Your task to perform on an android device: clear all cookies in the chrome app Image 0: 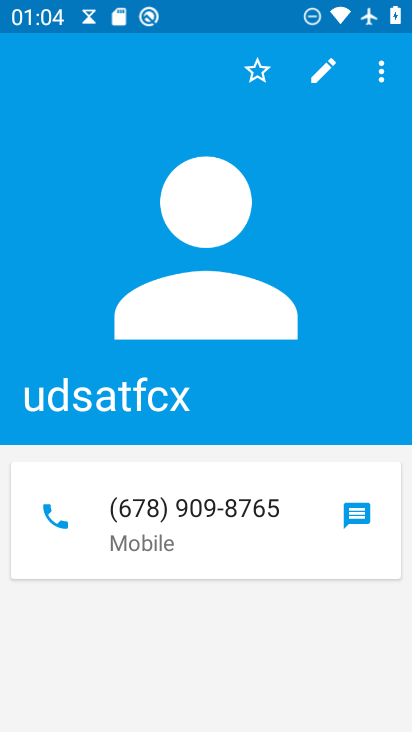
Step 0: press home button
Your task to perform on an android device: clear all cookies in the chrome app Image 1: 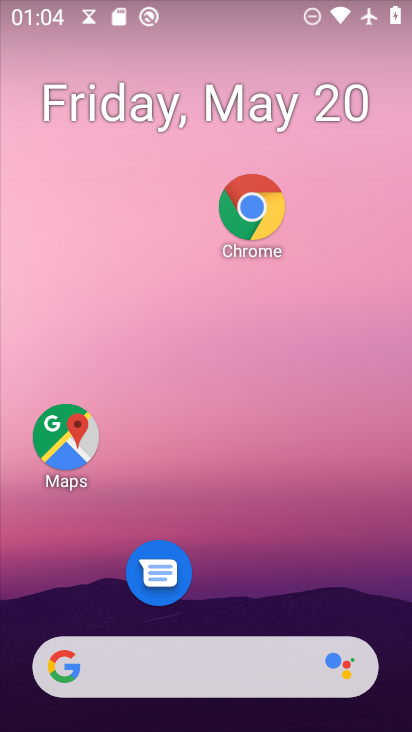
Step 1: click (253, 204)
Your task to perform on an android device: clear all cookies in the chrome app Image 2: 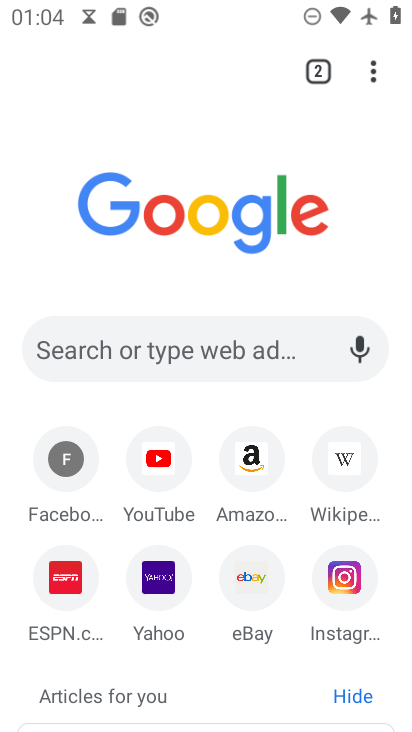
Step 2: click (374, 61)
Your task to perform on an android device: clear all cookies in the chrome app Image 3: 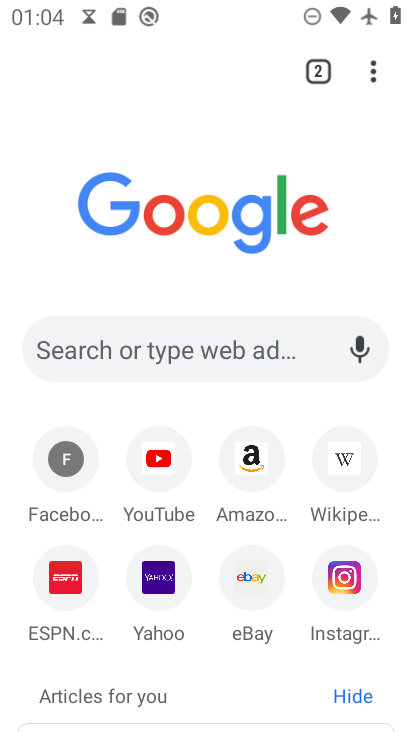
Step 3: click (390, 83)
Your task to perform on an android device: clear all cookies in the chrome app Image 4: 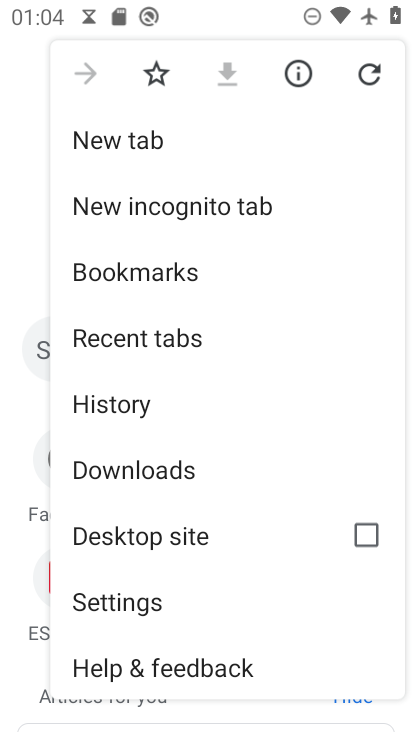
Step 4: click (152, 415)
Your task to perform on an android device: clear all cookies in the chrome app Image 5: 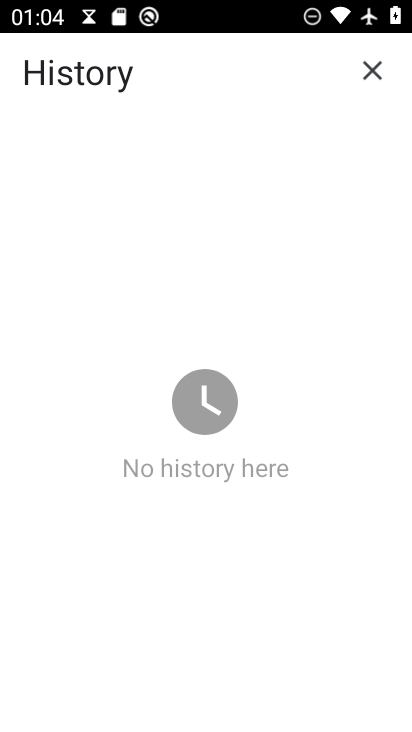
Step 5: task complete